Your task to perform on an android device: open sync settings in chrome Image 0: 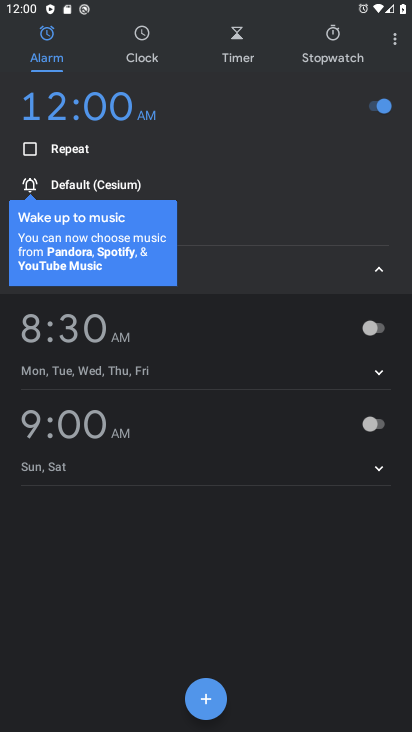
Step 0: press home button
Your task to perform on an android device: open sync settings in chrome Image 1: 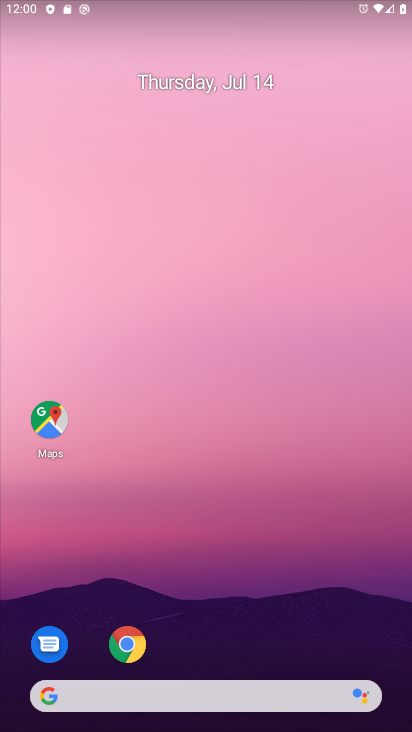
Step 1: click (141, 649)
Your task to perform on an android device: open sync settings in chrome Image 2: 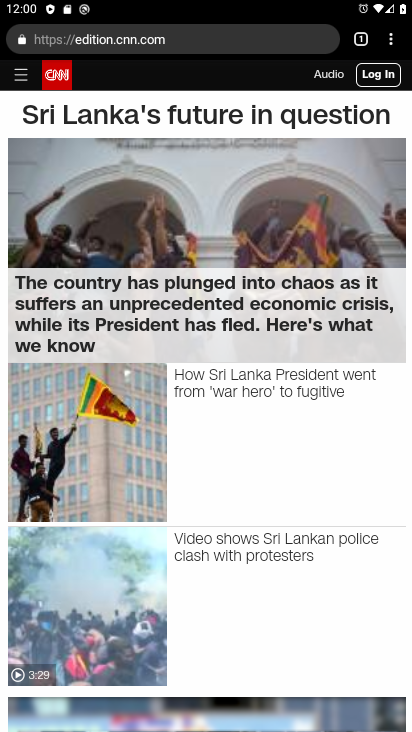
Step 2: click (386, 29)
Your task to perform on an android device: open sync settings in chrome Image 3: 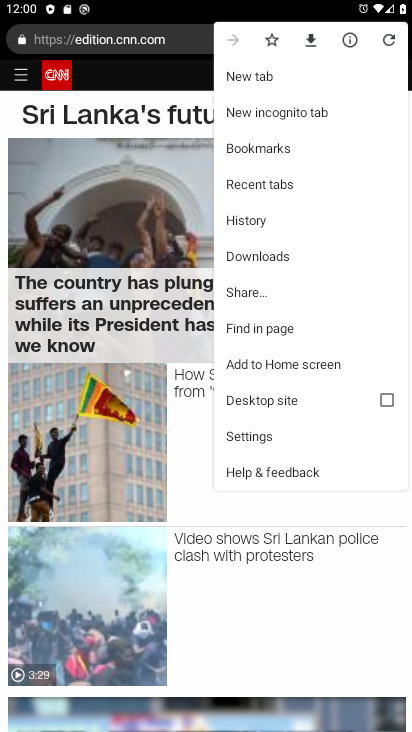
Step 3: click (237, 424)
Your task to perform on an android device: open sync settings in chrome Image 4: 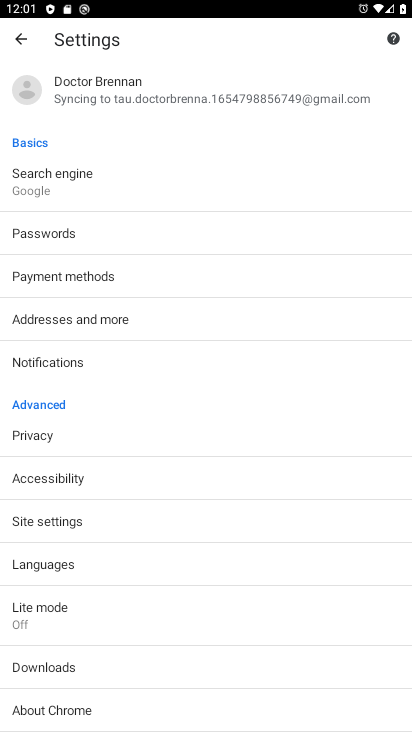
Step 4: drag from (105, 575) to (125, 235)
Your task to perform on an android device: open sync settings in chrome Image 5: 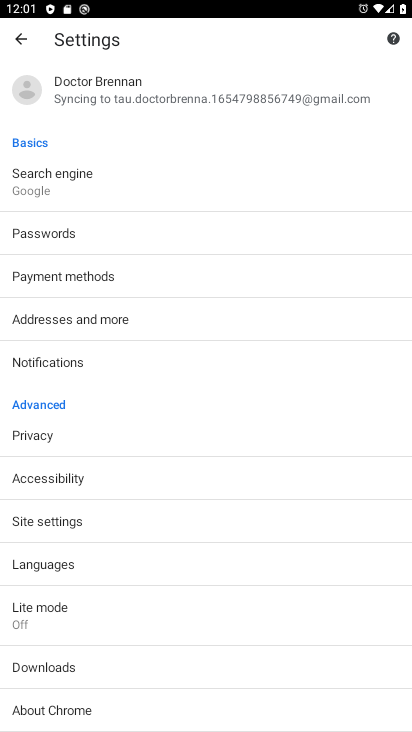
Step 5: click (53, 515)
Your task to perform on an android device: open sync settings in chrome Image 6: 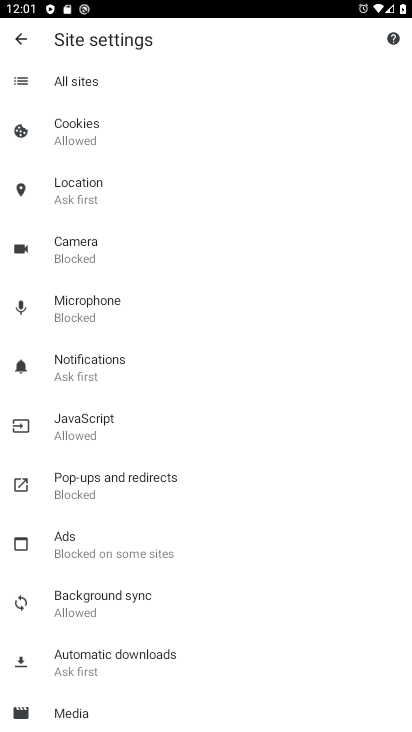
Step 6: press back button
Your task to perform on an android device: open sync settings in chrome Image 7: 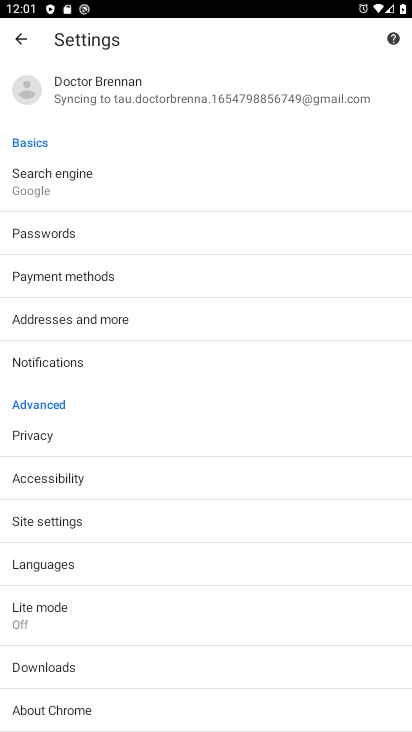
Step 7: click (130, 96)
Your task to perform on an android device: open sync settings in chrome Image 8: 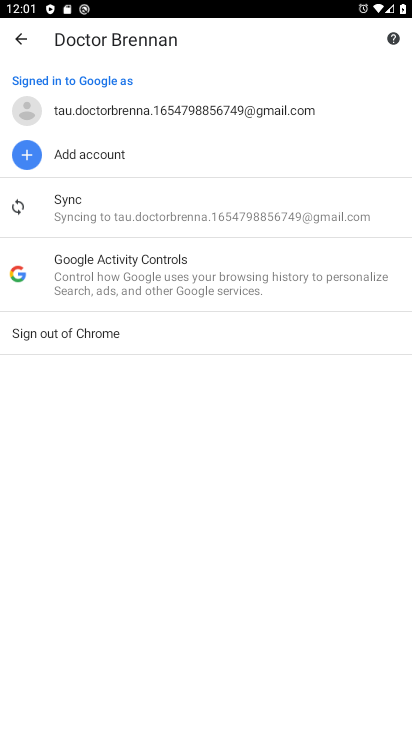
Step 8: click (84, 202)
Your task to perform on an android device: open sync settings in chrome Image 9: 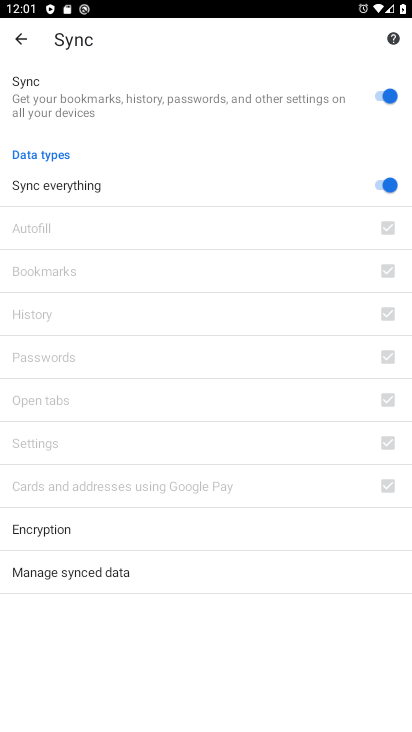
Step 9: task complete